Your task to perform on an android device: choose inbox layout in the gmail app Image 0: 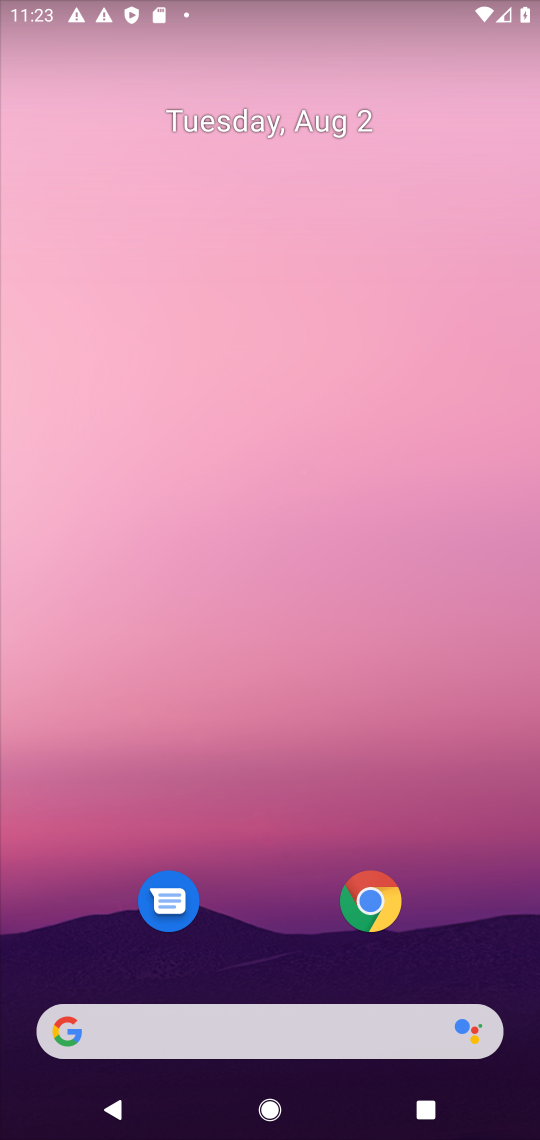
Step 0: press home button
Your task to perform on an android device: choose inbox layout in the gmail app Image 1: 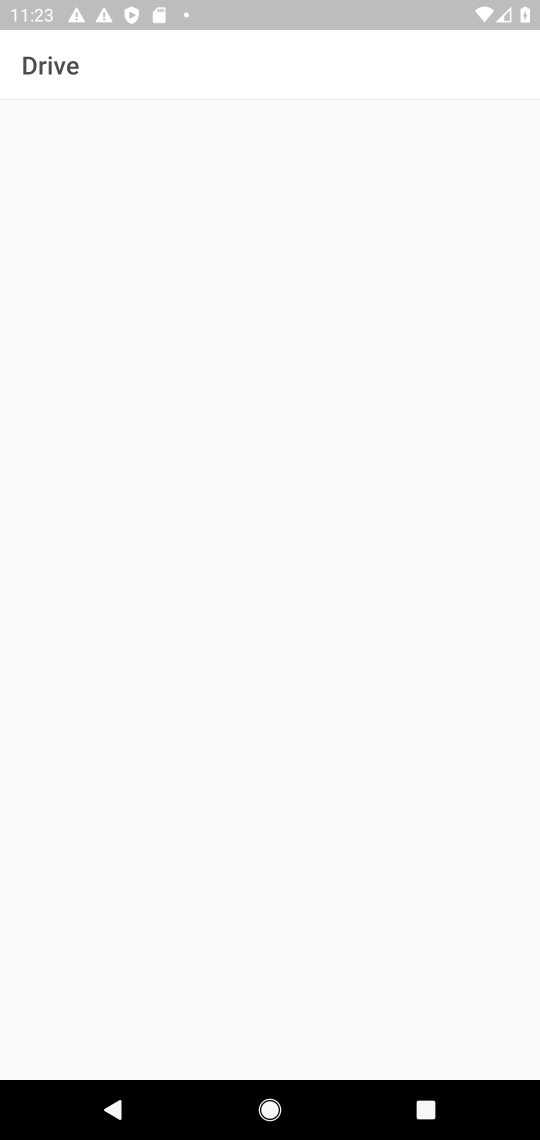
Step 1: press home button
Your task to perform on an android device: choose inbox layout in the gmail app Image 2: 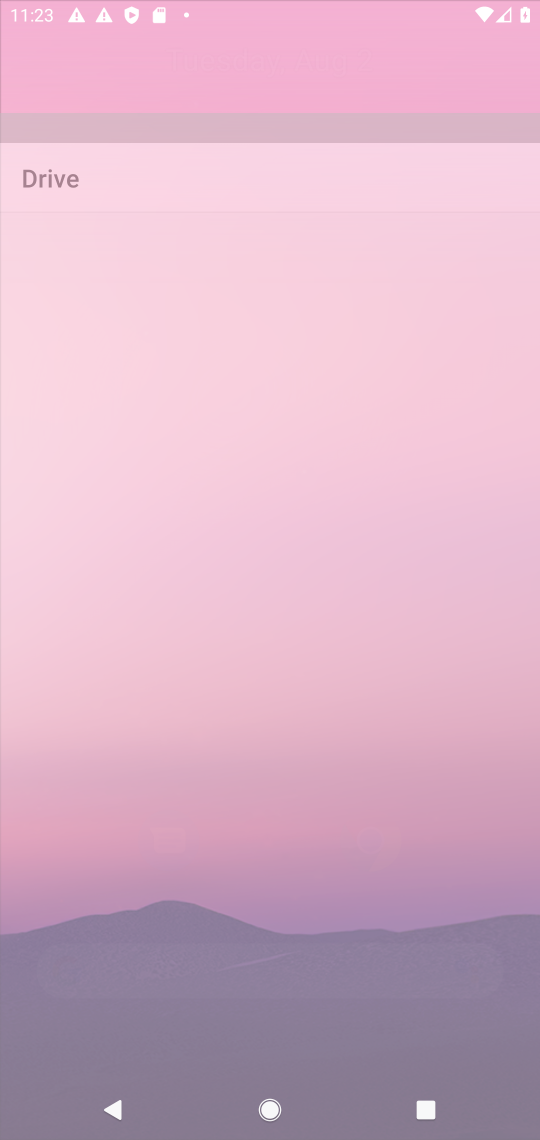
Step 2: drag from (464, 804) to (438, 296)
Your task to perform on an android device: choose inbox layout in the gmail app Image 3: 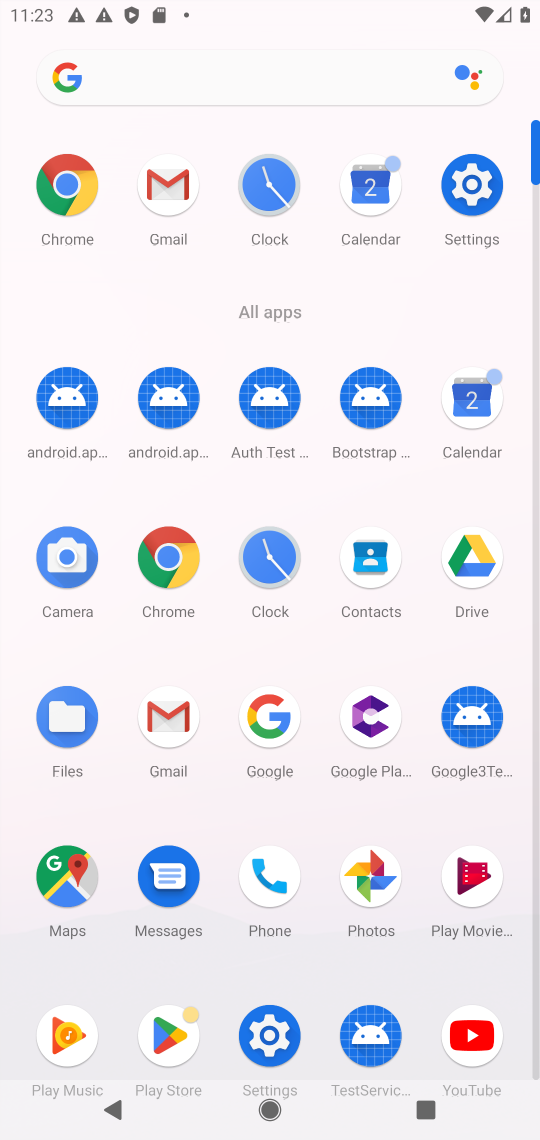
Step 3: press home button
Your task to perform on an android device: choose inbox layout in the gmail app Image 4: 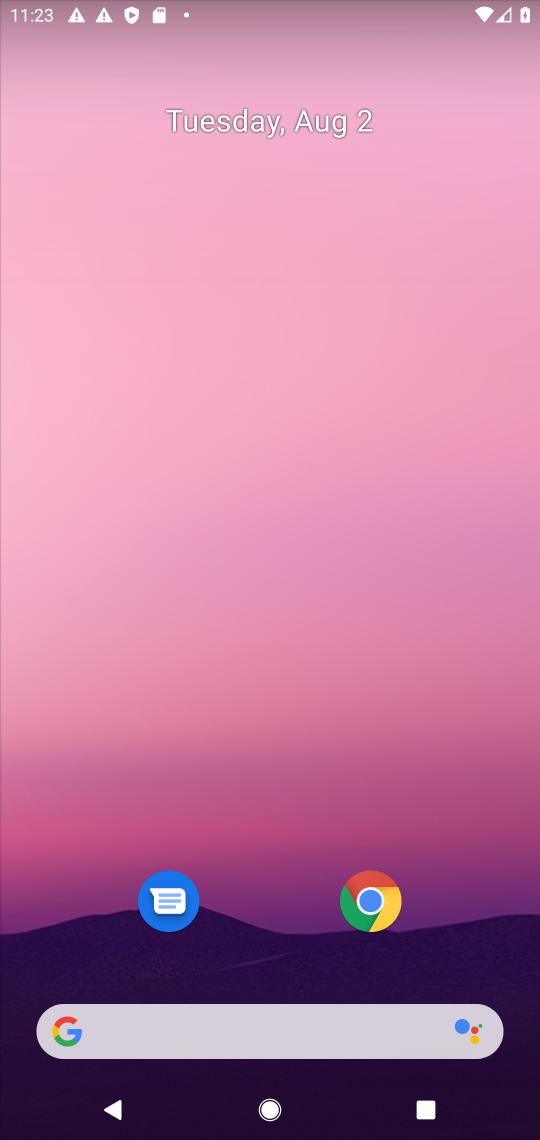
Step 4: click (177, 701)
Your task to perform on an android device: choose inbox layout in the gmail app Image 5: 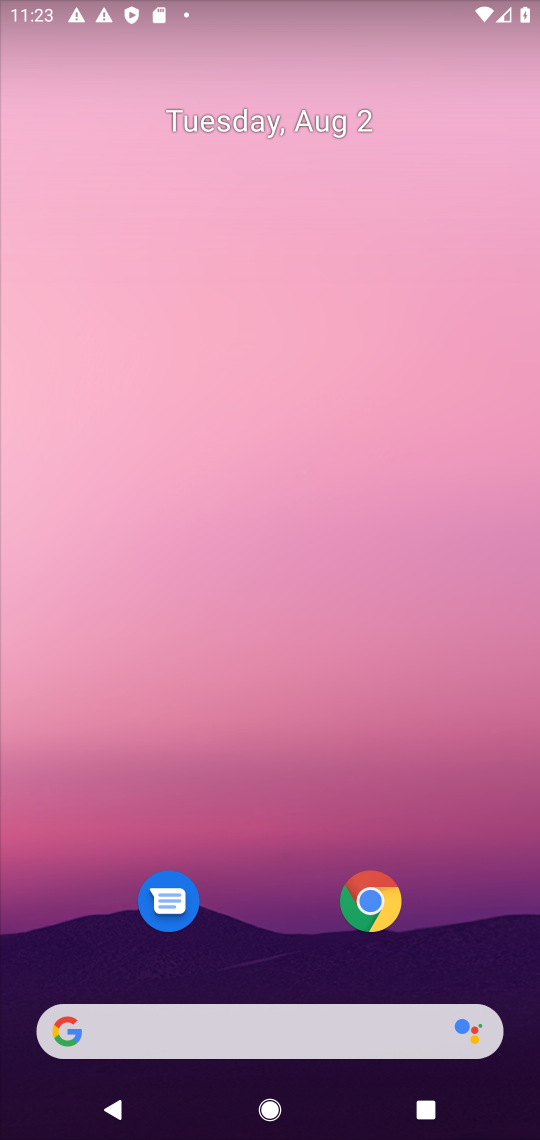
Step 5: drag from (518, 1095) to (361, 162)
Your task to perform on an android device: choose inbox layout in the gmail app Image 6: 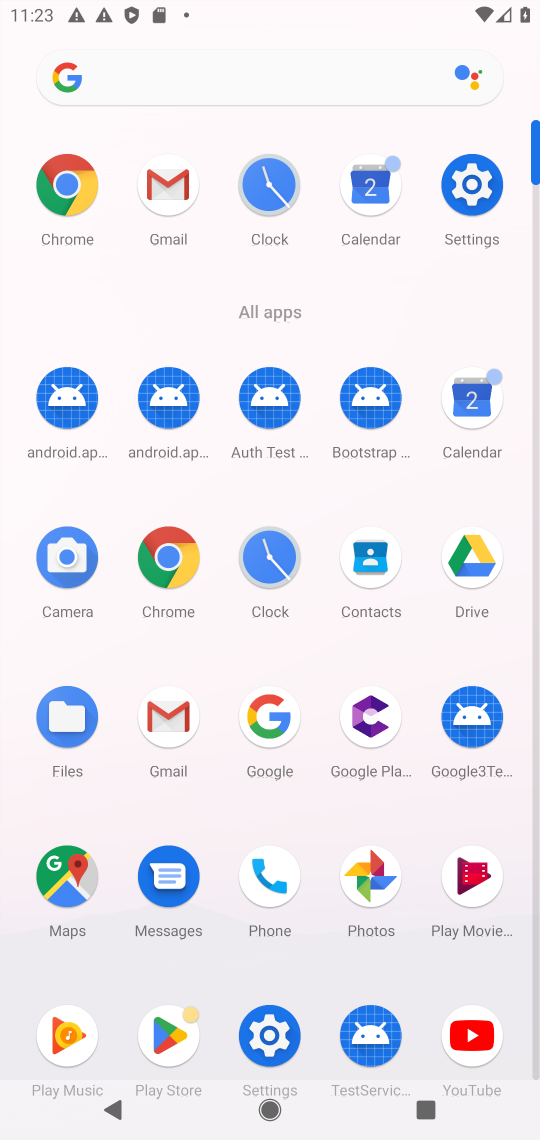
Step 6: click (158, 706)
Your task to perform on an android device: choose inbox layout in the gmail app Image 7: 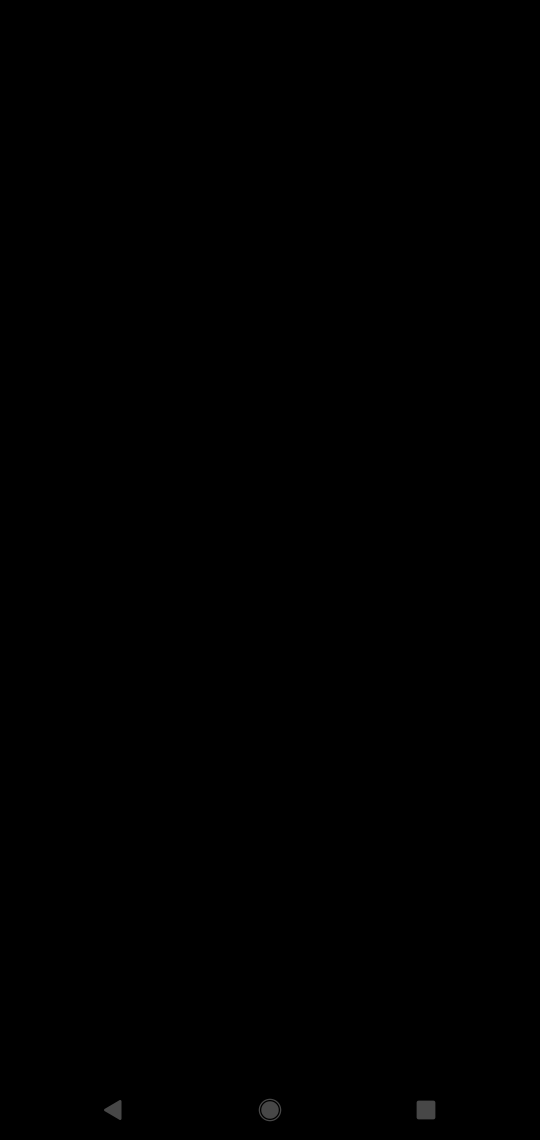
Step 7: task complete